Your task to perform on an android device: manage bookmarks in the chrome app Image 0: 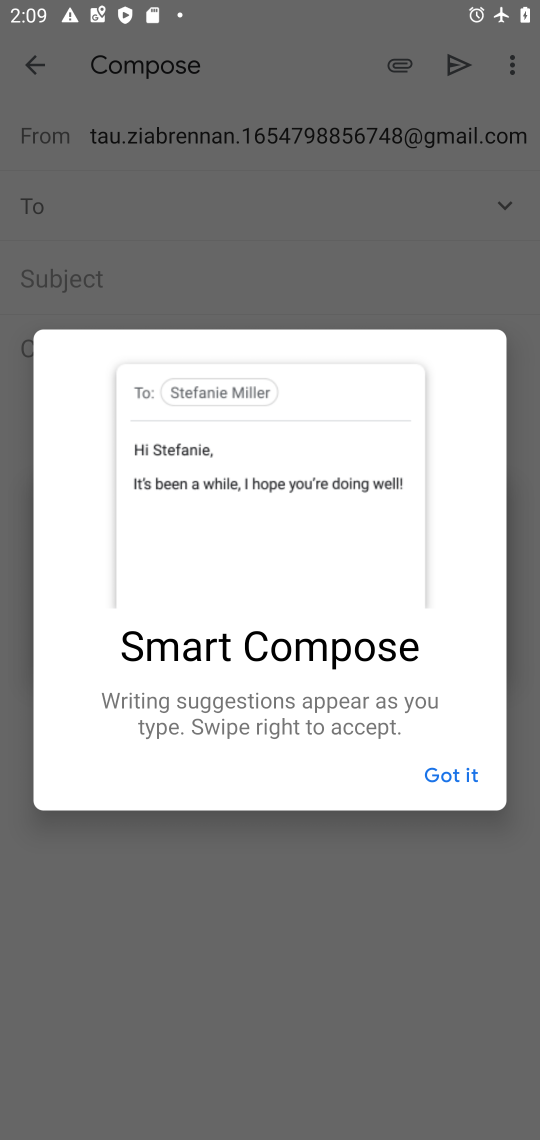
Step 0: press home button
Your task to perform on an android device: manage bookmarks in the chrome app Image 1: 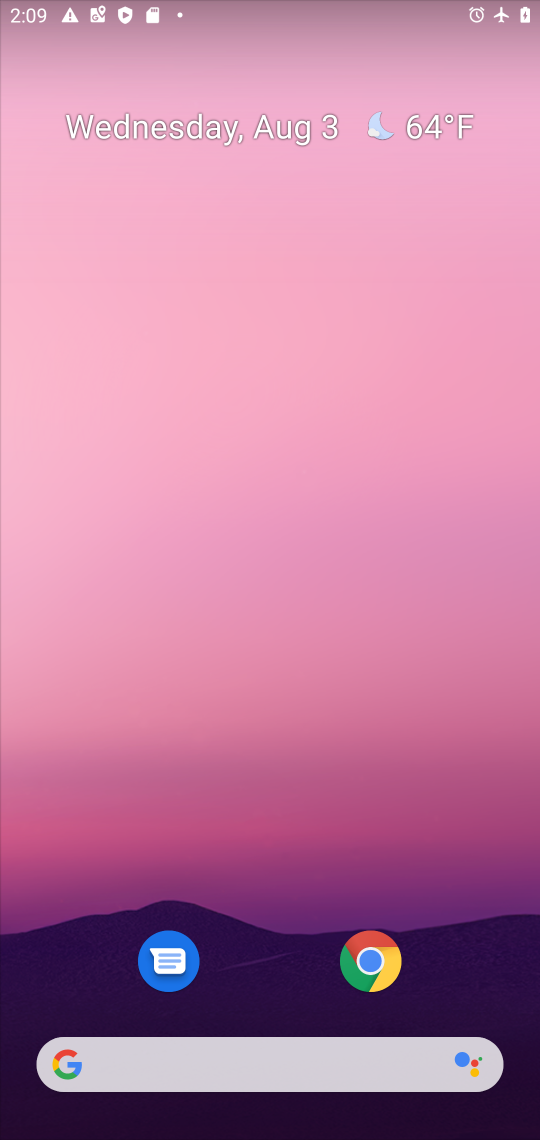
Step 1: click (367, 968)
Your task to perform on an android device: manage bookmarks in the chrome app Image 2: 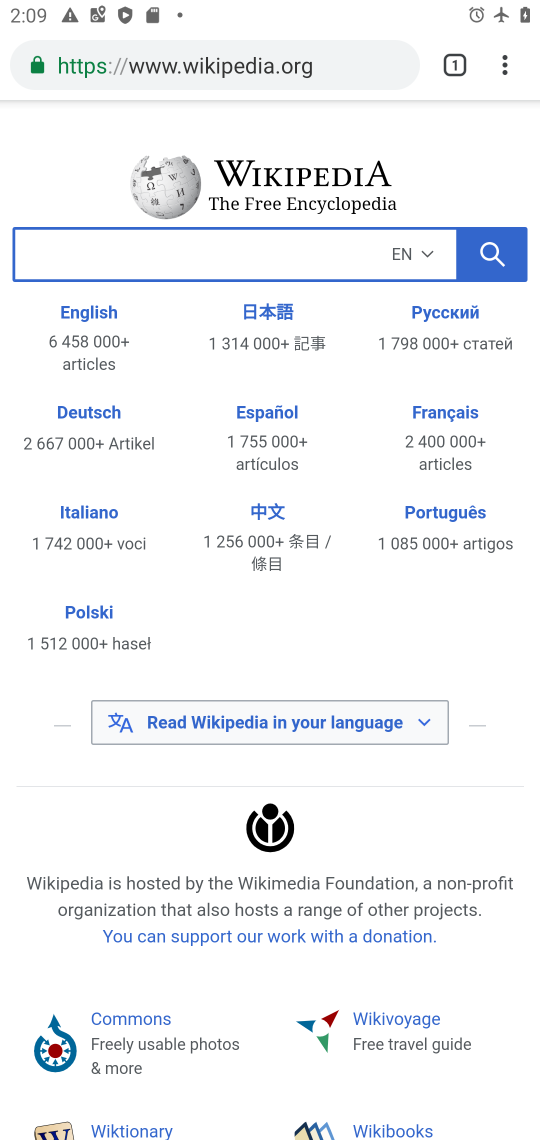
Step 2: drag from (503, 71) to (326, 257)
Your task to perform on an android device: manage bookmarks in the chrome app Image 3: 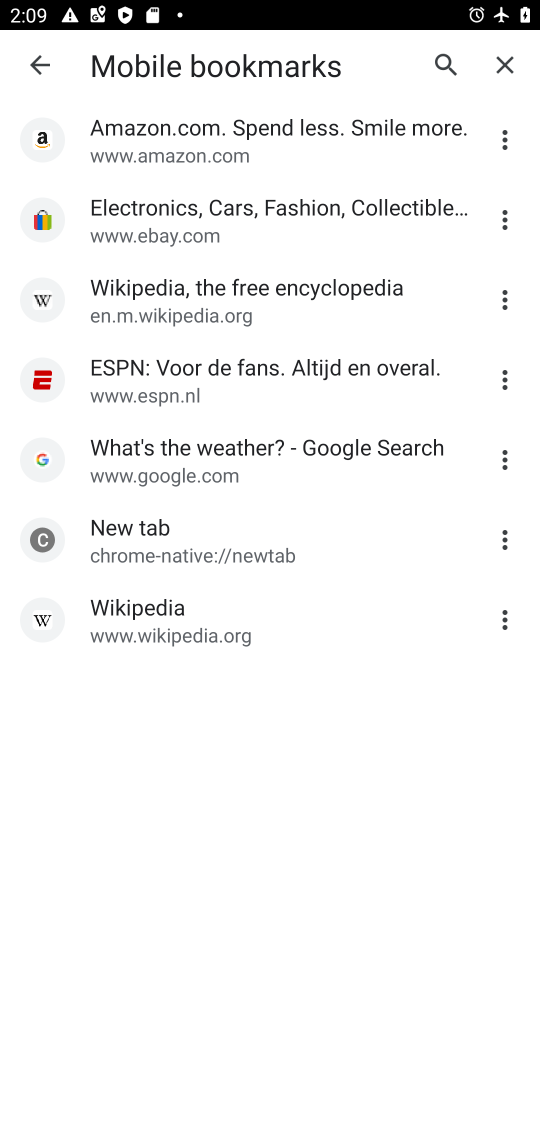
Step 3: click (504, 546)
Your task to perform on an android device: manage bookmarks in the chrome app Image 4: 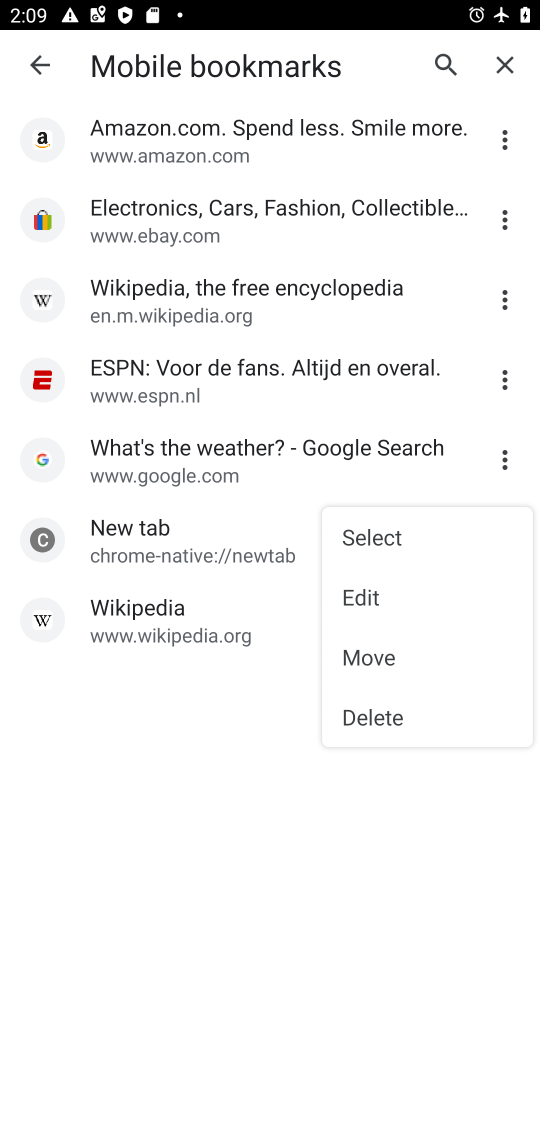
Step 4: click (372, 714)
Your task to perform on an android device: manage bookmarks in the chrome app Image 5: 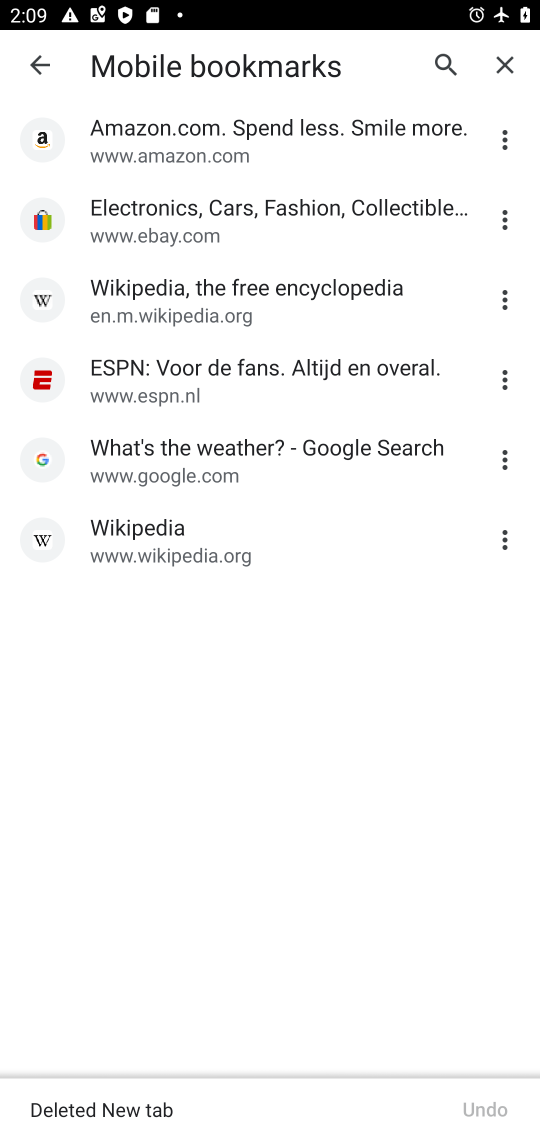
Step 5: task complete